Your task to perform on an android device: Show me productivity apps on the Play Store Image 0: 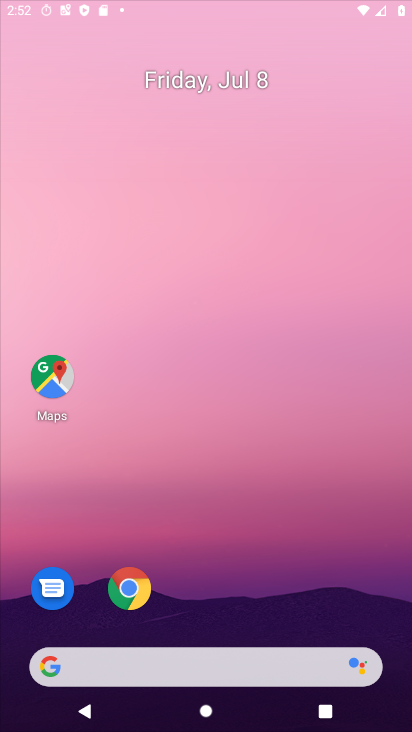
Step 0: press home button
Your task to perform on an android device: Show me productivity apps on the Play Store Image 1: 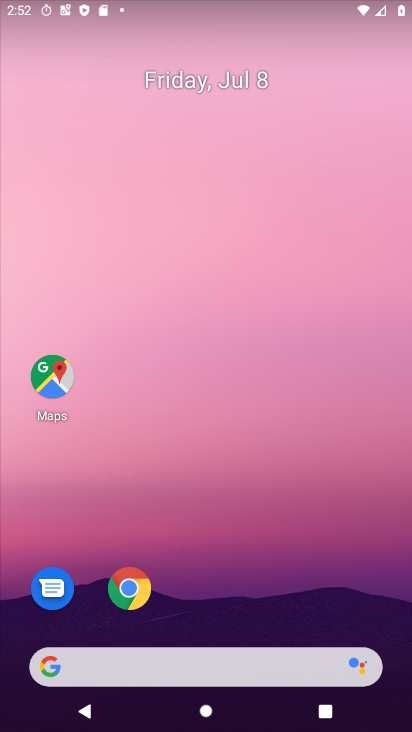
Step 1: drag from (232, 629) to (259, 188)
Your task to perform on an android device: Show me productivity apps on the Play Store Image 2: 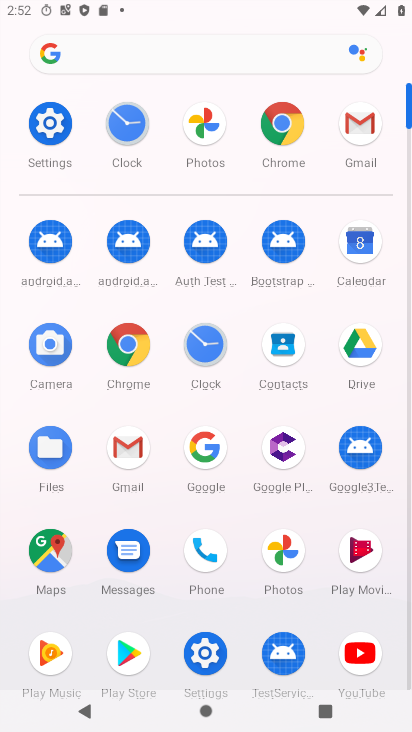
Step 2: click (127, 656)
Your task to perform on an android device: Show me productivity apps on the Play Store Image 3: 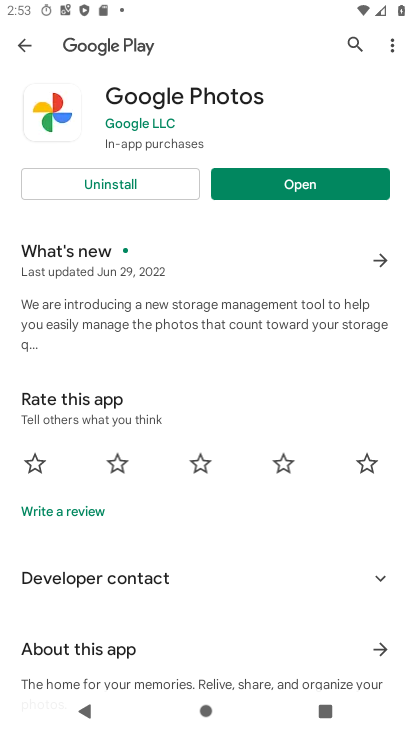
Step 3: press back button
Your task to perform on an android device: Show me productivity apps on the Play Store Image 4: 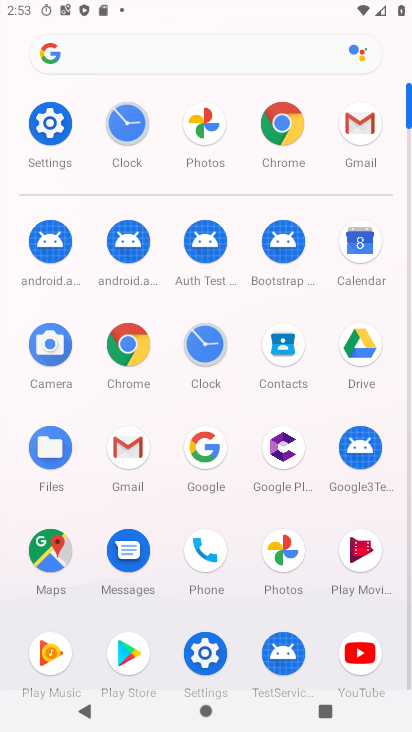
Step 4: click (132, 656)
Your task to perform on an android device: Show me productivity apps on the Play Store Image 5: 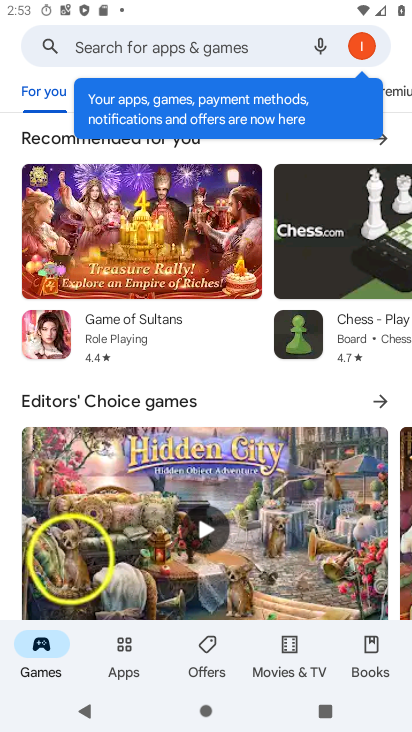
Step 5: click (131, 660)
Your task to perform on an android device: Show me productivity apps on the Play Store Image 6: 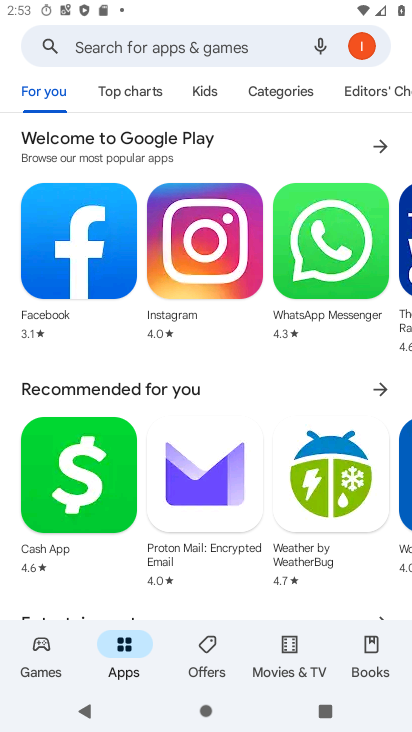
Step 6: click (283, 97)
Your task to perform on an android device: Show me productivity apps on the Play Store Image 7: 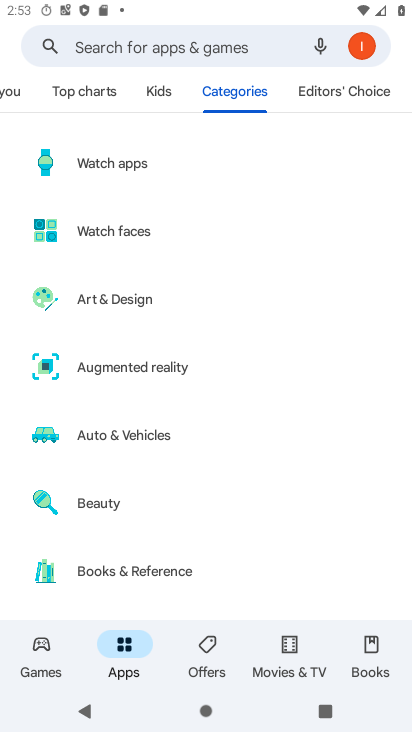
Step 7: drag from (264, 447) to (235, 128)
Your task to perform on an android device: Show me productivity apps on the Play Store Image 8: 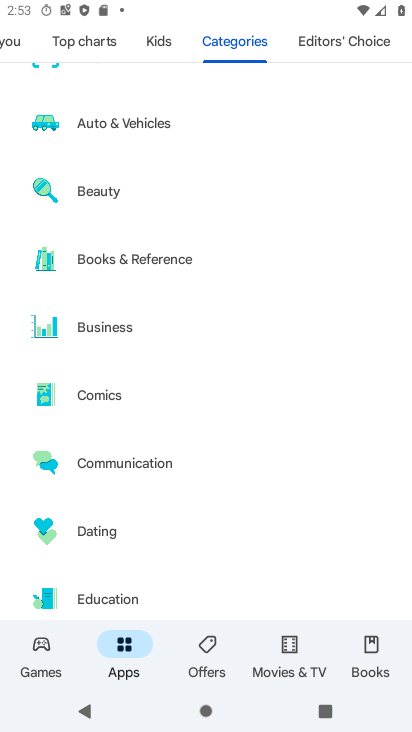
Step 8: drag from (242, 480) to (269, 105)
Your task to perform on an android device: Show me productivity apps on the Play Store Image 9: 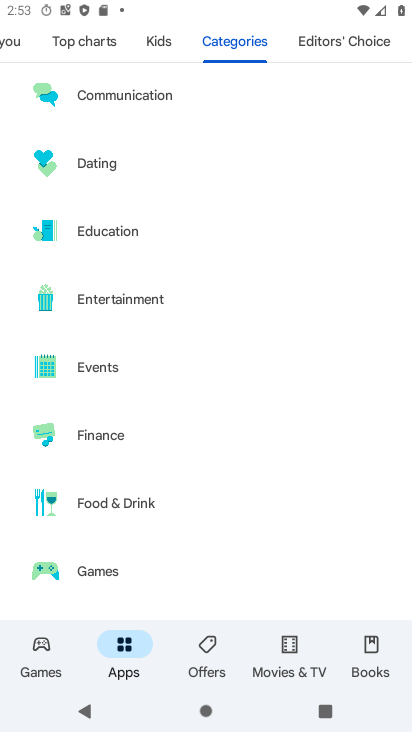
Step 9: drag from (250, 492) to (266, 167)
Your task to perform on an android device: Show me productivity apps on the Play Store Image 10: 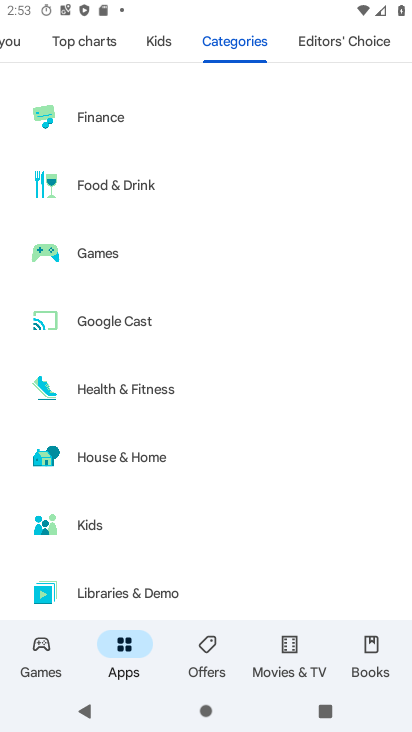
Step 10: drag from (201, 534) to (231, 272)
Your task to perform on an android device: Show me productivity apps on the Play Store Image 11: 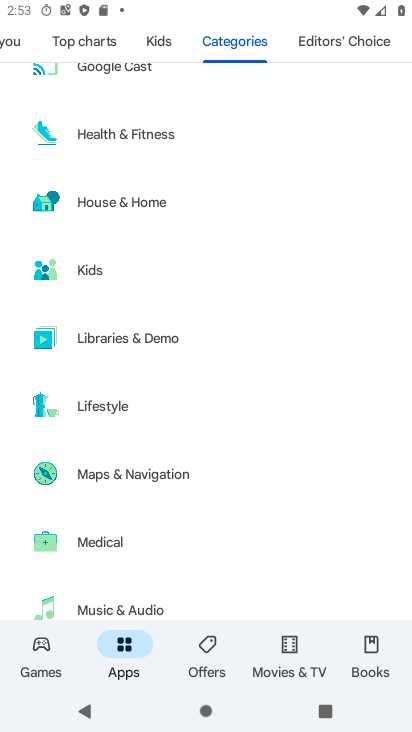
Step 11: drag from (218, 459) to (242, 244)
Your task to perform on an android device: Show me productivity apps on the Play Store Image 12: 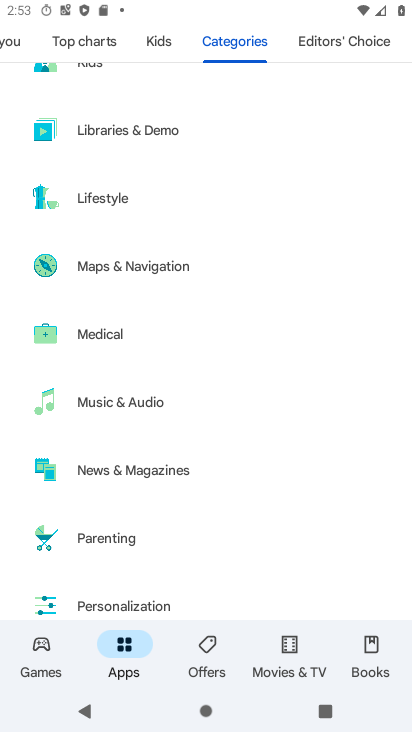
Step 12: drag from (201, 543) to (234, 355)
Your task to perform on an android device: Show me productivity apps on the Play Store Image 13: 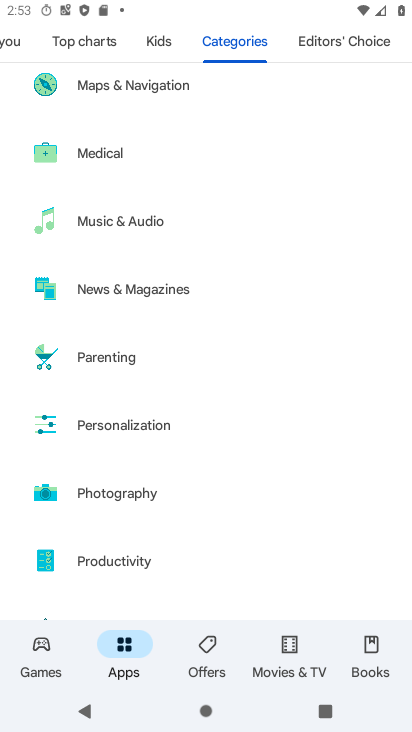
Step 13: click (108, 559)
Your task to perform on an android device: Show me productivity apps on the Play Store Image 14: 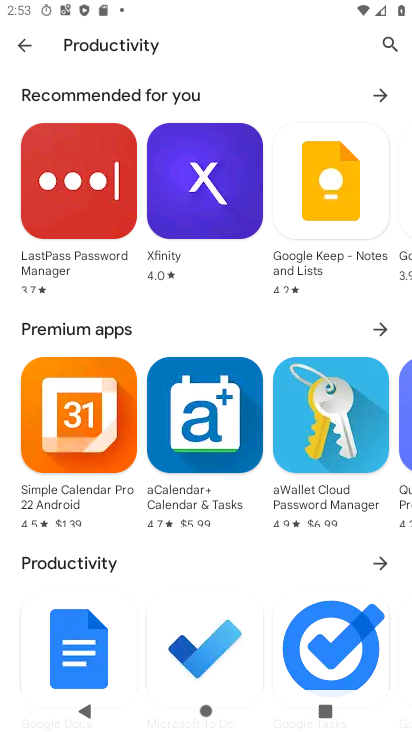
Step 14: task complete